Your task to perform on an android device: Is it going to rain today? Image 0: 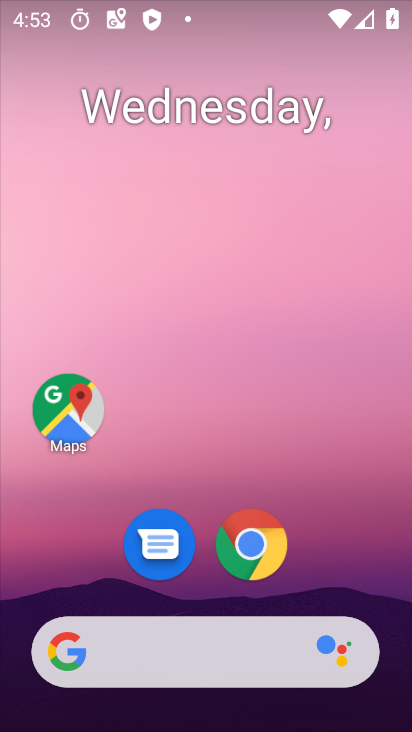
Step 0: click (245, 648)
Your task to perform on an android device: Is it going to rain today? Image 1: 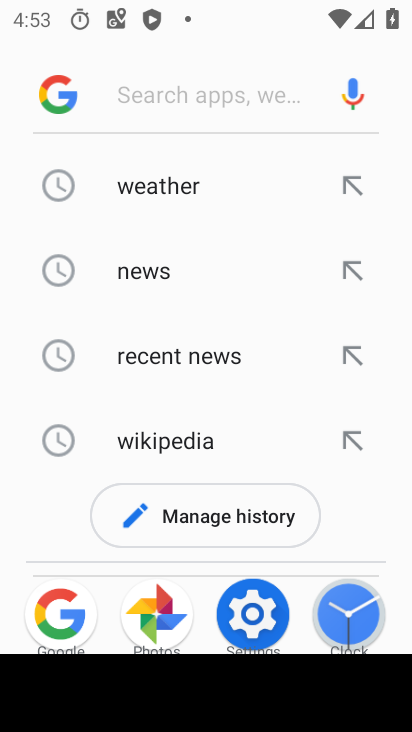
Step 1: click (161, 213)
Your task to perform on an android device: Is it going to rain today? Image 2: 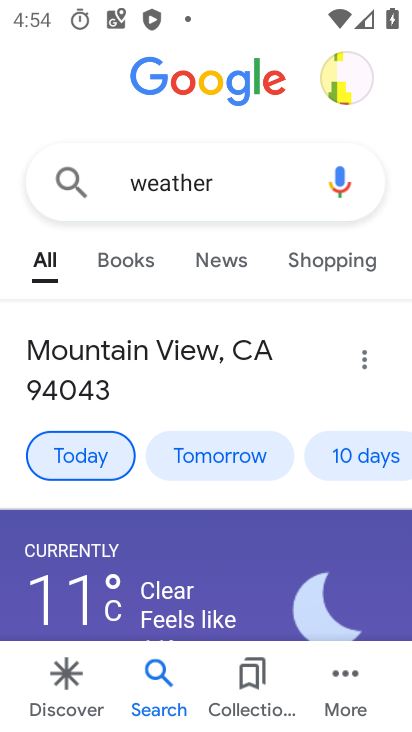
Step 2: click (105, 474)
Your task to perform on an android device: Is it going to rain today? Image 3: 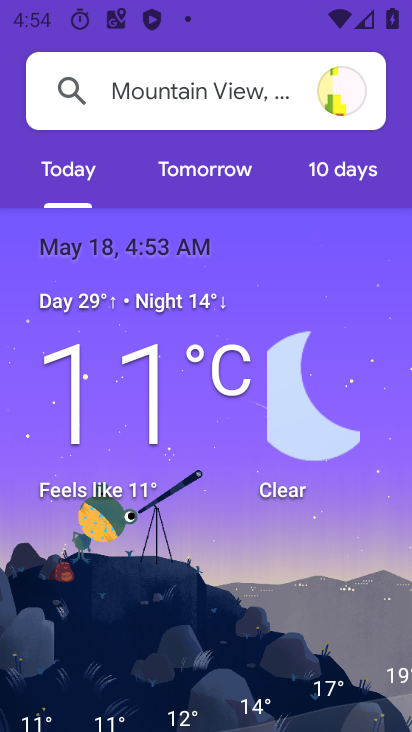
Step 3: task complete